Your task to perform on an android device: check android version Image 0: 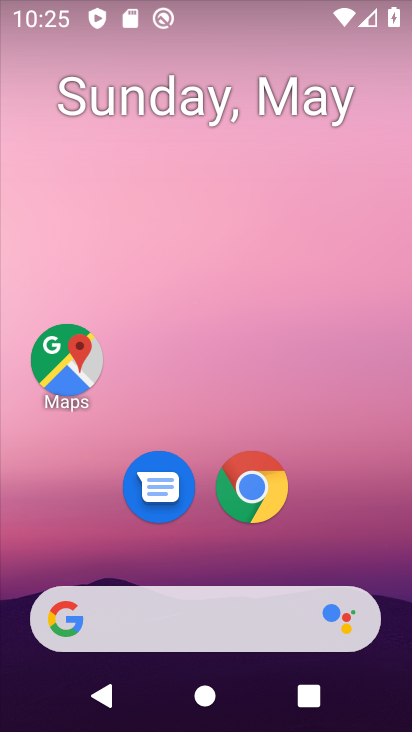
Step 0: drag from (133, 575) to (206, 260)
Your task to perform on an android device: check android version Image 1: 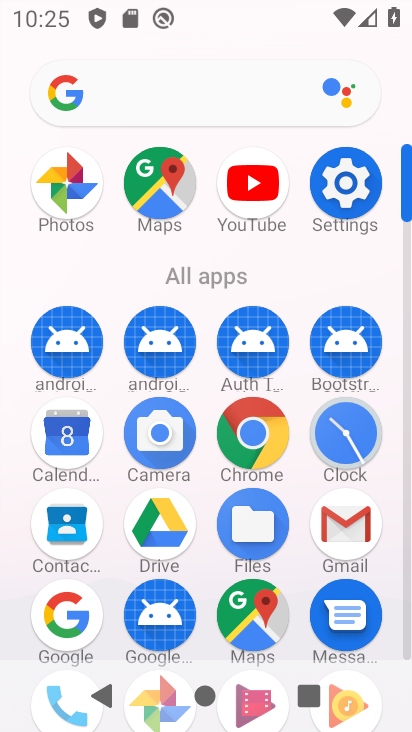
Step 1: drag from (203, 600) to (258, 405)
Your task to perform on an android device: check android version Image 2: 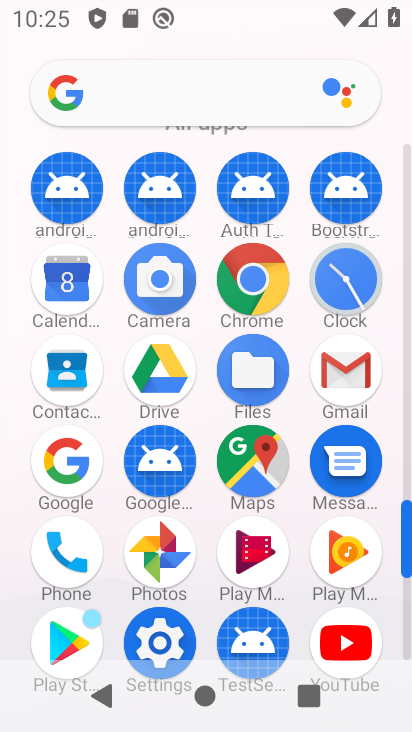
Step 2: click (162, 644)
Your task to perform on an android device: check android version Image 3: 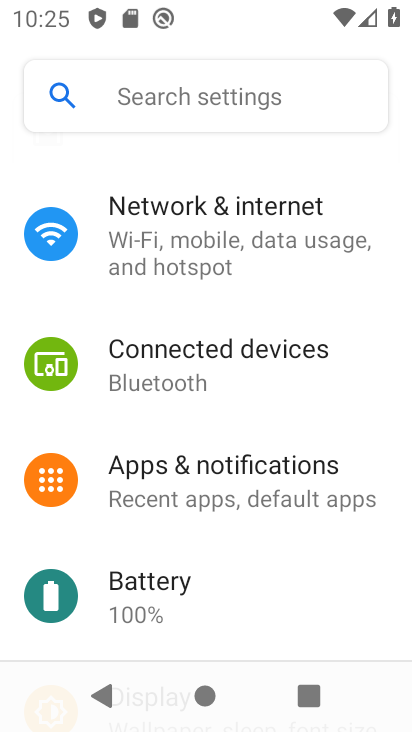
Step 3: click (162, 644)
Your task to perform on an android device: check android version Image 4: 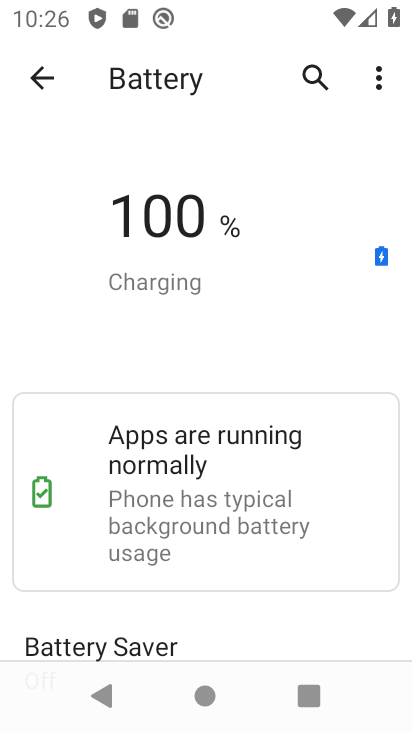
Step 4: press back button
Your task to perform on an android device: check android version Image 5: 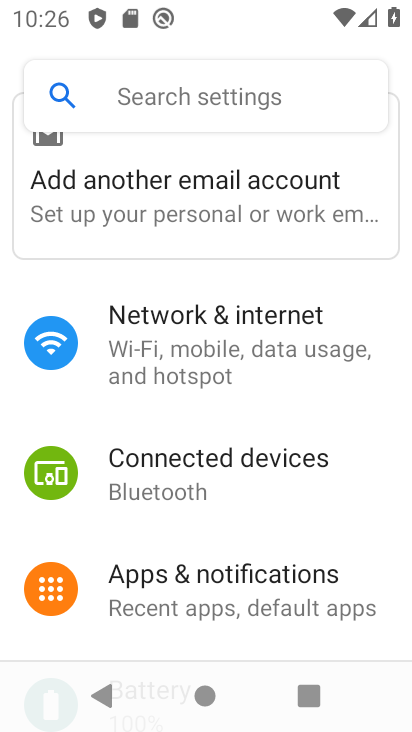
Step 5: drag from (277, 579) to (316, 358)
Your task to perform on an android device: check android version Image 6: 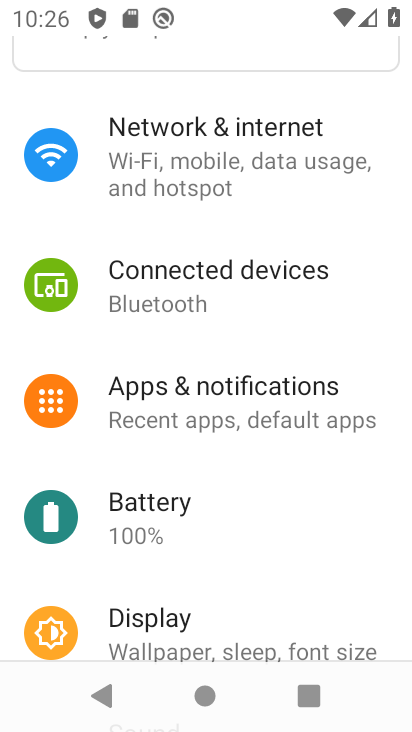
Step 6: drag from (314, 613) to (344, 276)
Your task to perform on an android device: check android version Image 7: 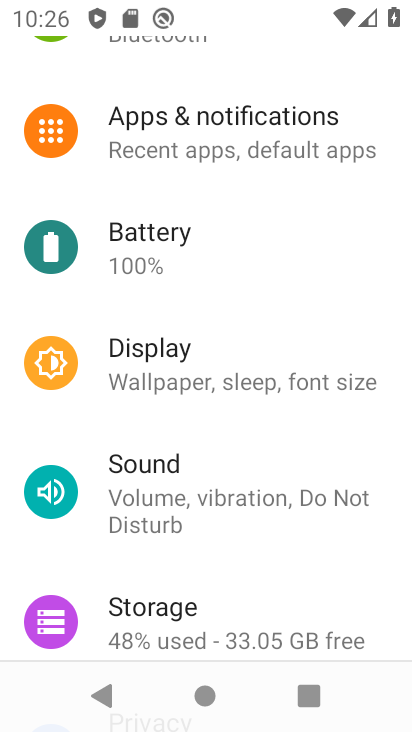
Step 7: drag from (279, 592) to (361, 415)
Your task to perform on an android device: check android version Image 8: 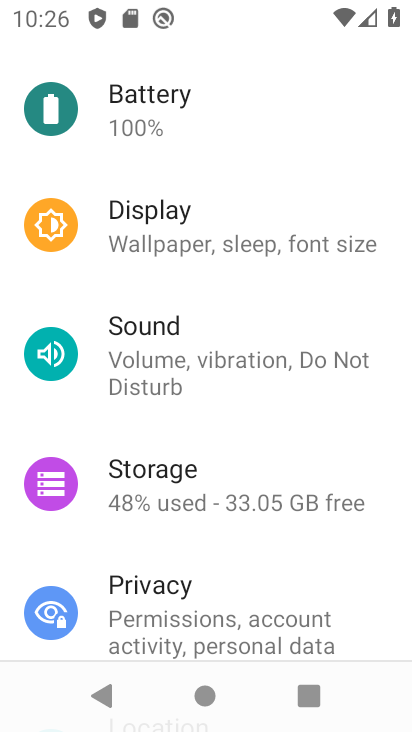
Step 8: drag from (339, 584) to (382, 343)
Your task to perform on an android device: check android version Image 9: 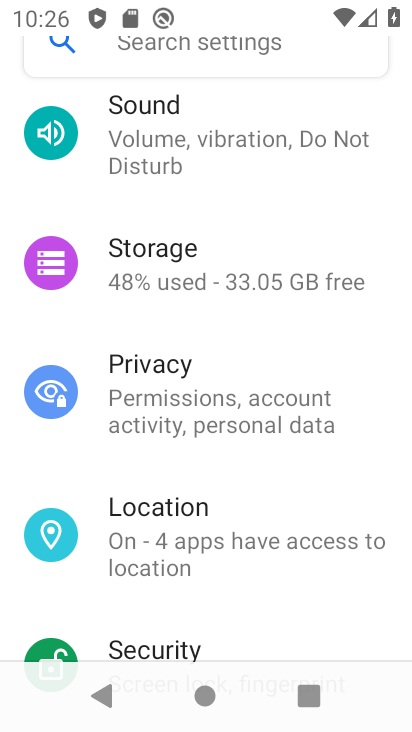
Step 9: drag from (297, 611) to (326, 372)
Your task to perform on an android device: check android version Image 10: 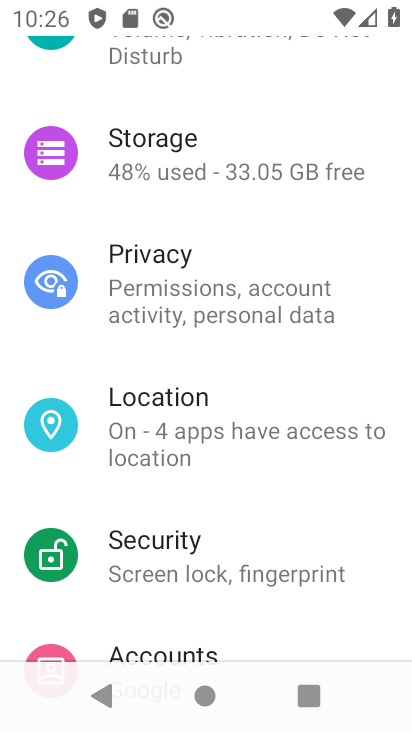
Step 10: drag from (287, 618) to (363, 385)
Your task to perform on an android device: check android version Image 11: 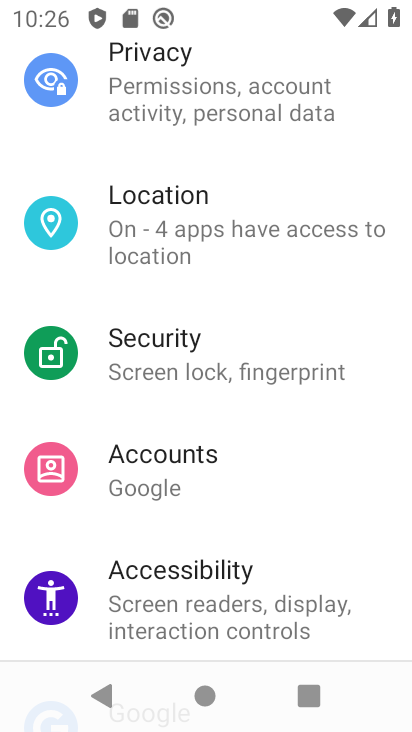
Step 11: drag from (293, 540) to (353, 203)
Your task to perform on an android device: check android version Image 12: 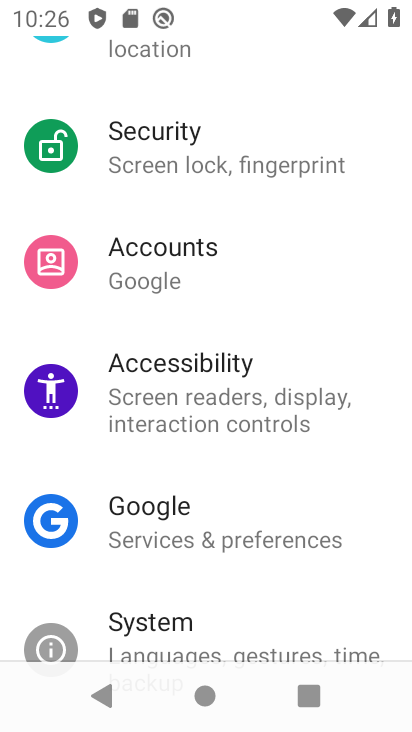
Step 12: drag from (222, 621) to (317, 251)
Your task to perform on an android device: check android version Image 13: 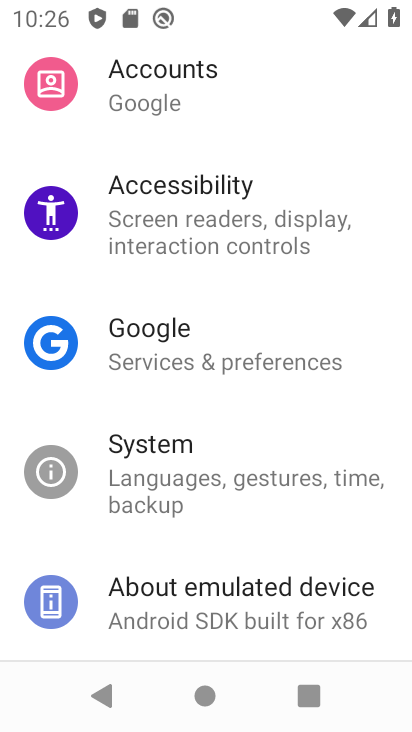
Step 13: click (304, 611)
Your task to perform on an android device: check android version Image 14: 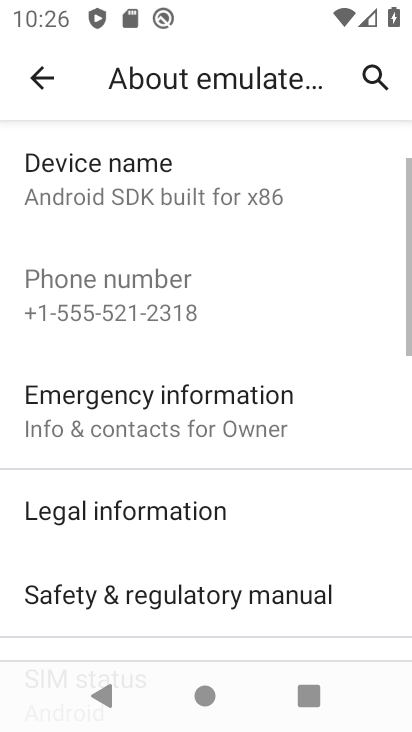
Step 14: drag from (293, 605) to (366, 285)
Your task to perform on an android device: check android version Image 15: 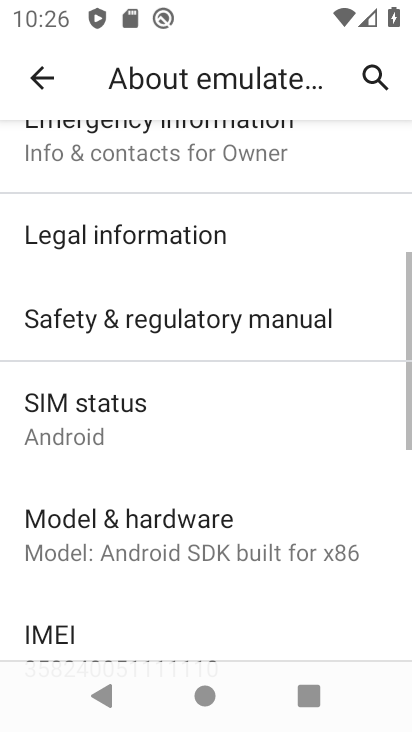
Step 15: drag from (225, 478) to (299, 258)
Your task to perform on an android device: check android version Image 16: 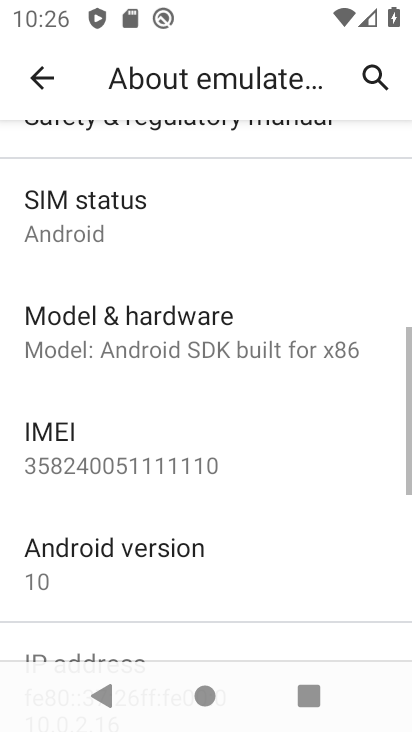
Step 16: click (180, 573)
Your task to perform on an android device: check android version Image 17: 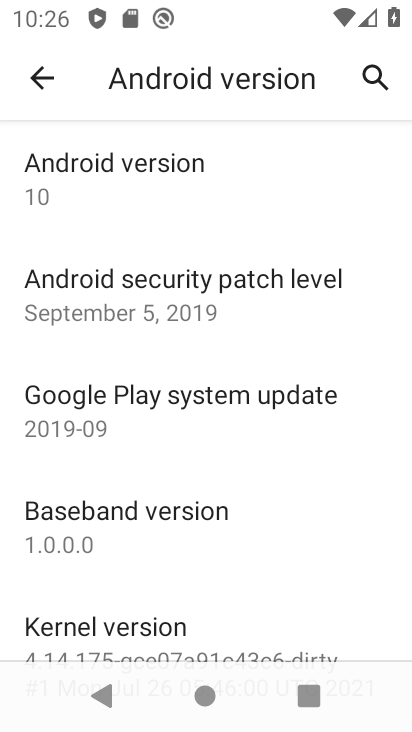
Step 17: task complete